Your task to perform on an android device: turn notification dots off Image 0: 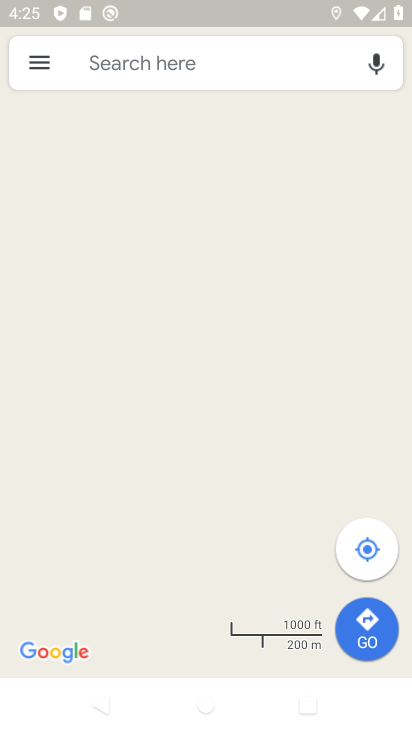
Step 0: press back button
Your task to perform on an android device: turn notification dots off Image 1: 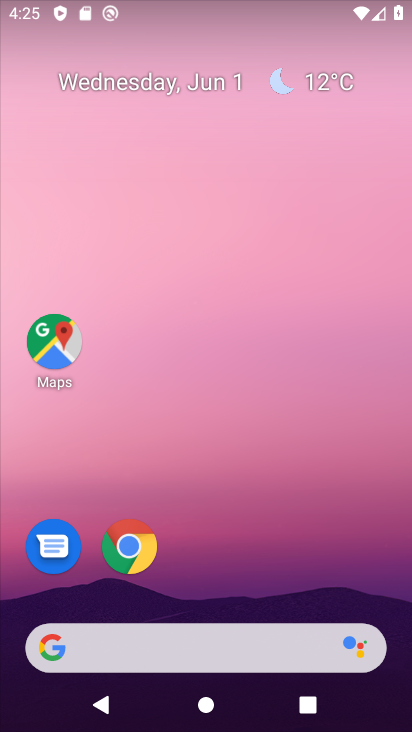
Step 1: drag from (306, 523) to (262, 16)
Your task to perform on an android device: turn notification dots off Image 2: 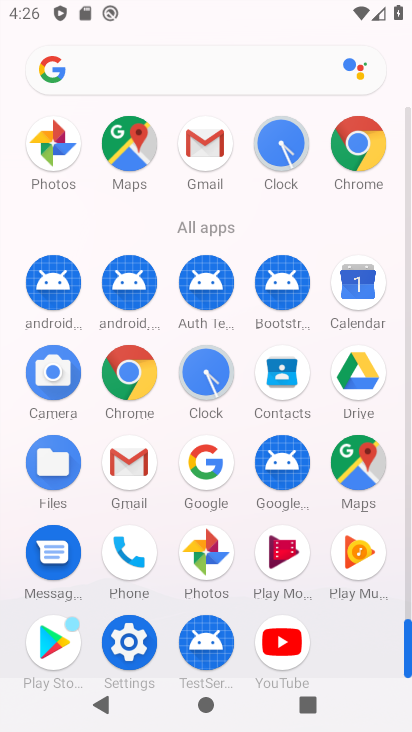
Step 2: click (131, 640)
Your task to perform on an android device: turn notification dots off Image 3: 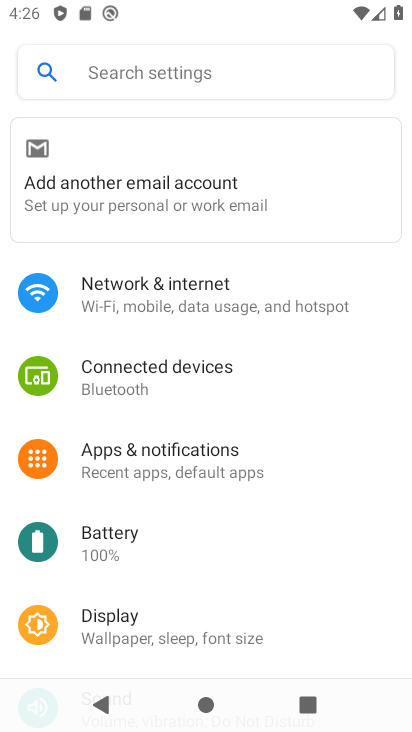
Step 3: click (155, 463)
Your task to perform on an android device: turn notification dots off Image 4: 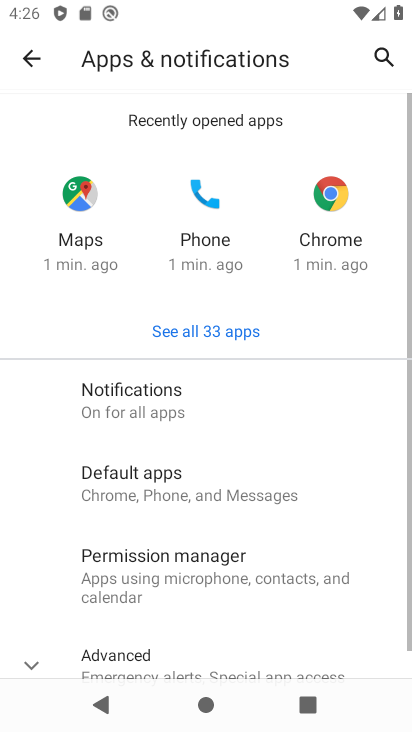
Step 4: click (25, 645)
Your task to perform on an android device: turn notification dots off Image 5: 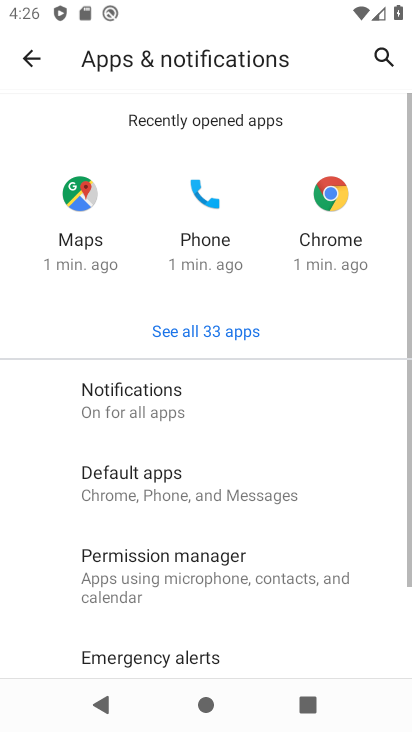
Step 5: drag from (283, 575) to (315, 167)
Your task to perform on an android device: turn notification dots off Image 6: 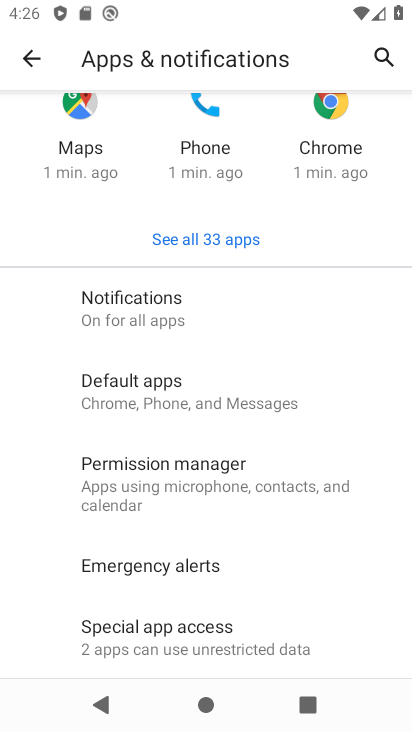
Step 6: click (276, 312)
Your task to perform on an android device: turn notification dots off Image 7: 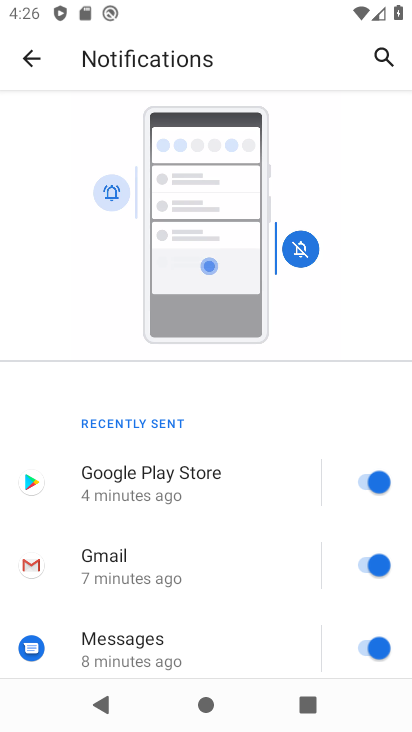
Step 7: drag from (219, 619) to (239, 122)
Your task to perform on an android device: turn notification dots off Image 8: 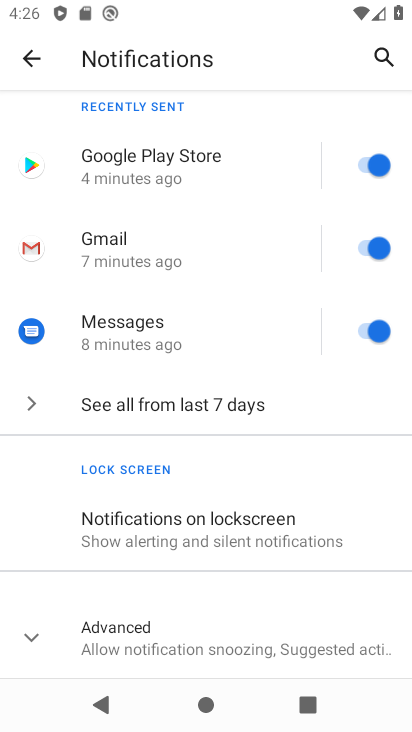
Step 8: click (40, 640)
Your task to perform on an android device: turn notification dots off Image 9: 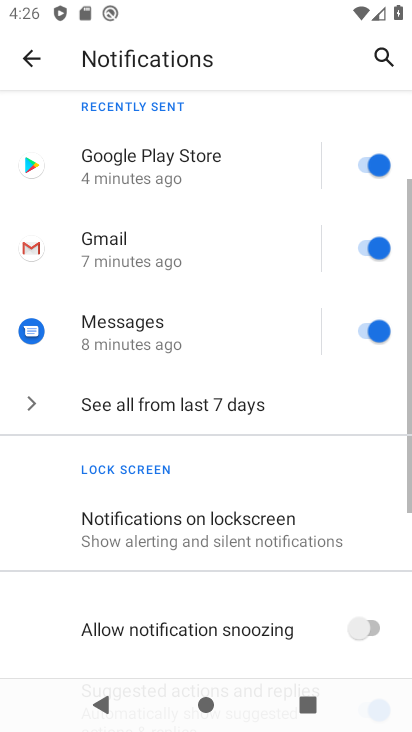
Step 9: drag from (192, 513) to (202, 135)
Your task to perform on an android device: turn notification dots off Image 10: 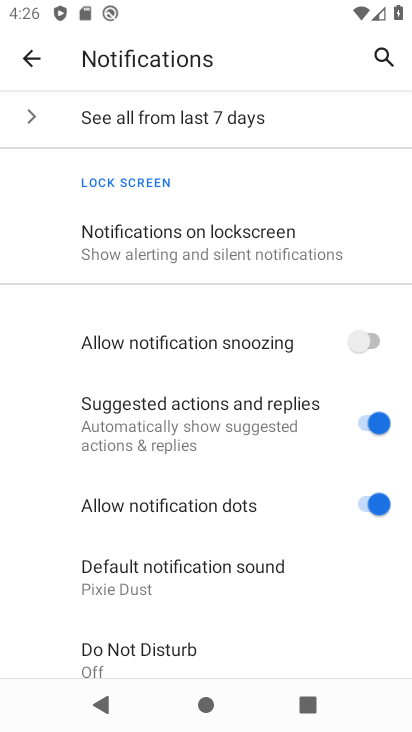
Step 10: click (356, 496)
Your task to perform on an android device: turn notification dots off Image 11: 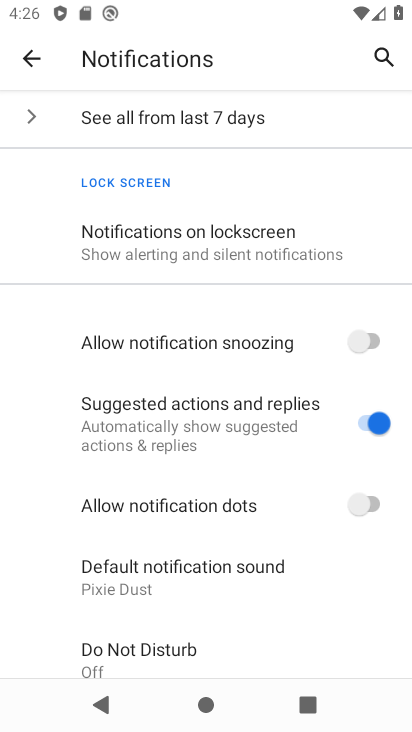
Step 11: task complete